Your task to perform on an android device: turn pop-ups off in chrome Image 0: 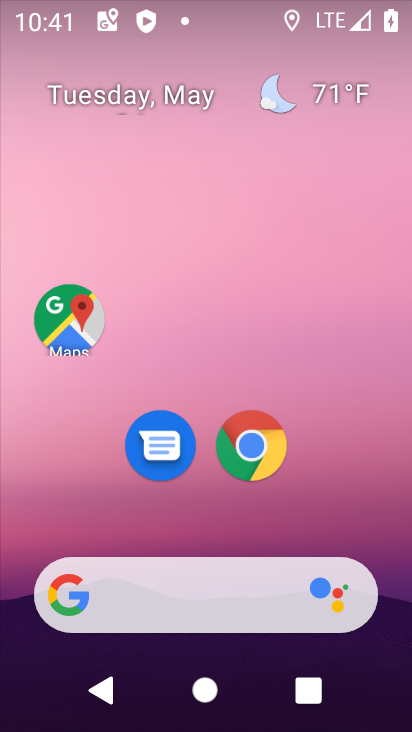
Step 0: click (249, 447)
Your task to perform on an android device: turn pop-ups off in chrome Image 1: 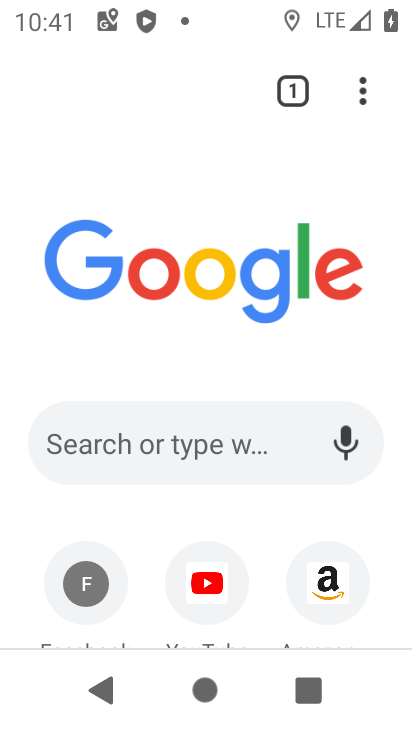
Step 1: click (363, 92)
Your task to perform on an android device: turn pop-ups off in chrome Image 2: 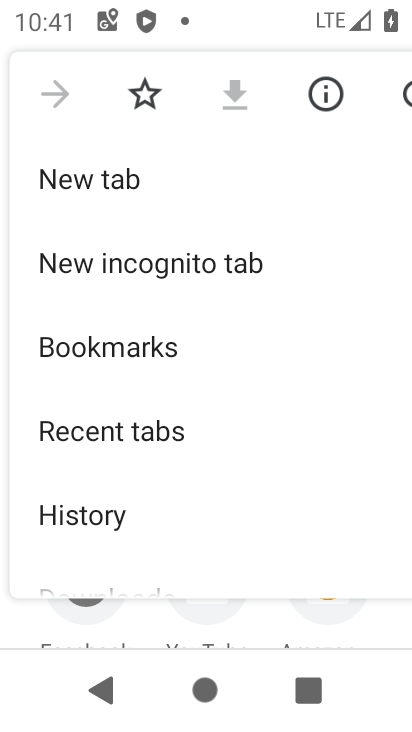
Step 2: drag from (128, 484) to (193, 386)
Your task to perform on an android device: turn pop-ups off in chrome Image 3: 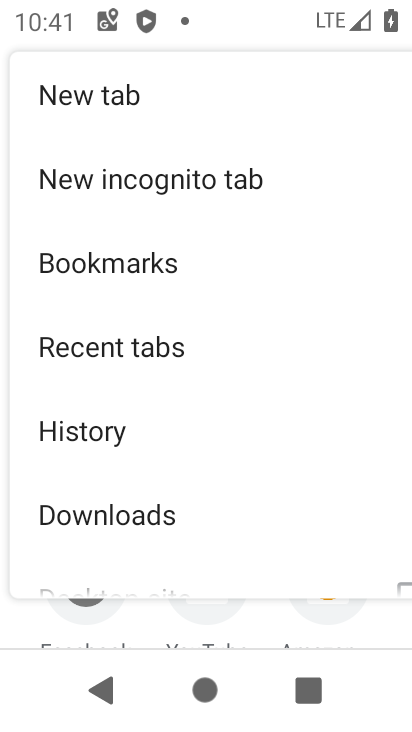
Step 3: drag from (122, 481) to (187, 394)
Your task to perform on an android device: turn pop-ups off in chrome Image 4: 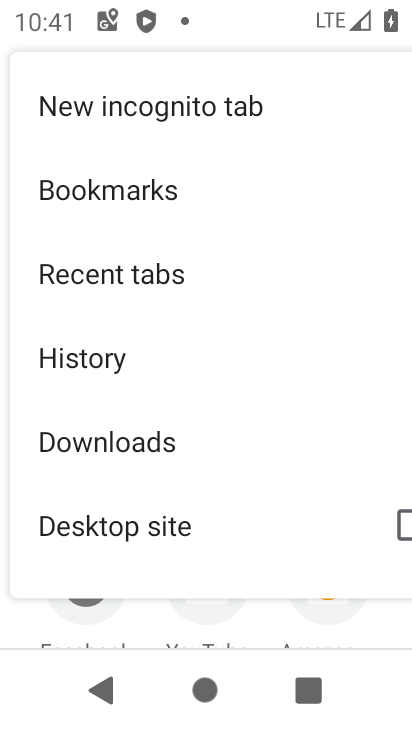
Step 4: drag from (178, 456) to (230, 390)
Your task to perform on an android device: turn pop-ups off in chrome Image 5: 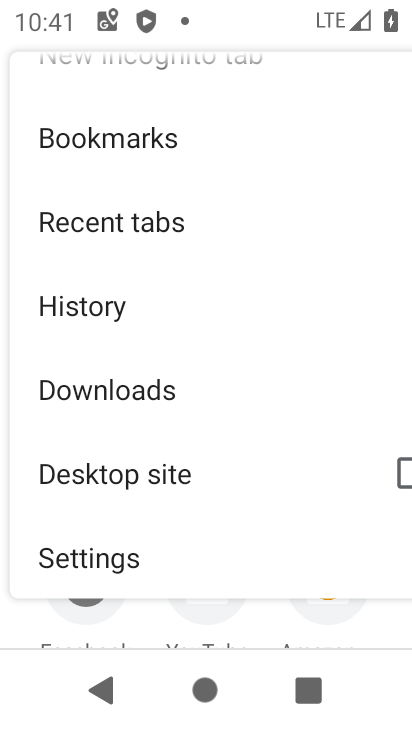
Step 5: drag from (130, 519) to (238, 403)
Your task to perform on an android device: turn pop-ups off in chrome Image 6: 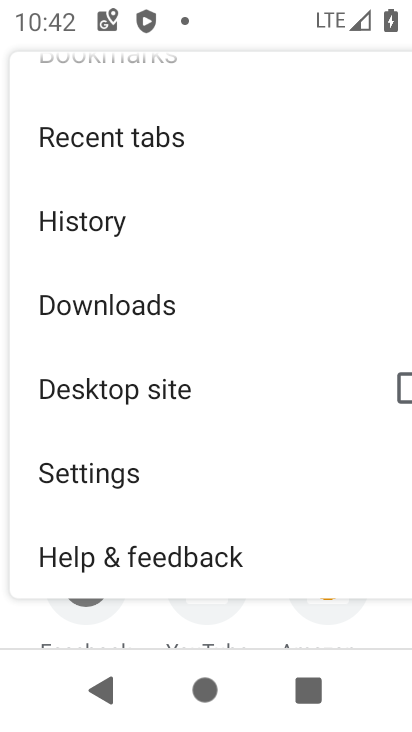
Step 6: click (112, 477)
Your task to perform on an android device: turn pop-ups off in chrome Image 7: 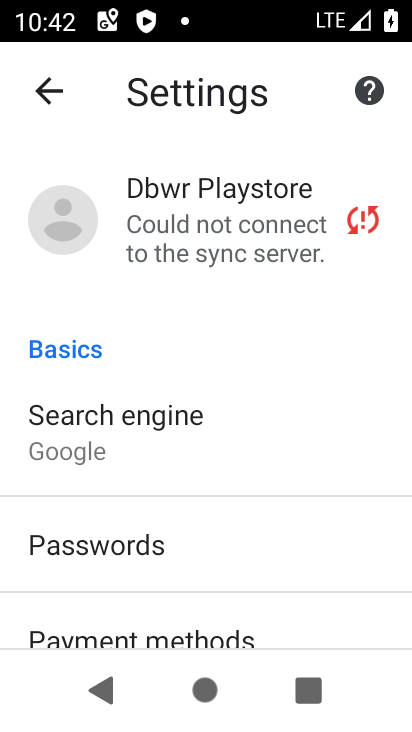
Step 7: drag from (206, 542) to (261, 446)
Your task to perform on an android device: turn pop-ups off in chrome Image 8: 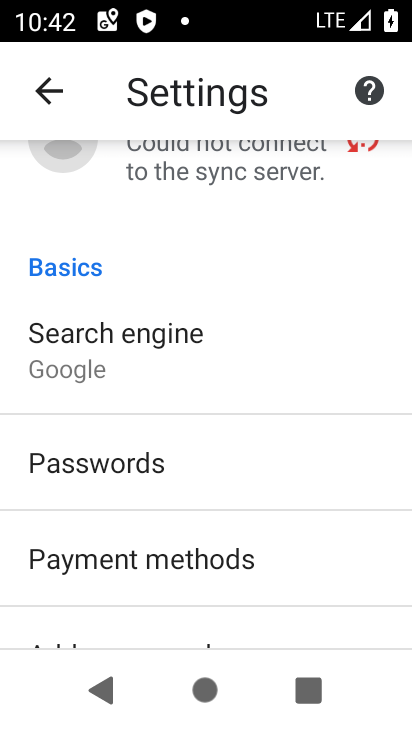
Step 8: drag from (186, 532) to (270, 436)
Your task to perform on an android device: turn pop-ups off in chrome Image 9: 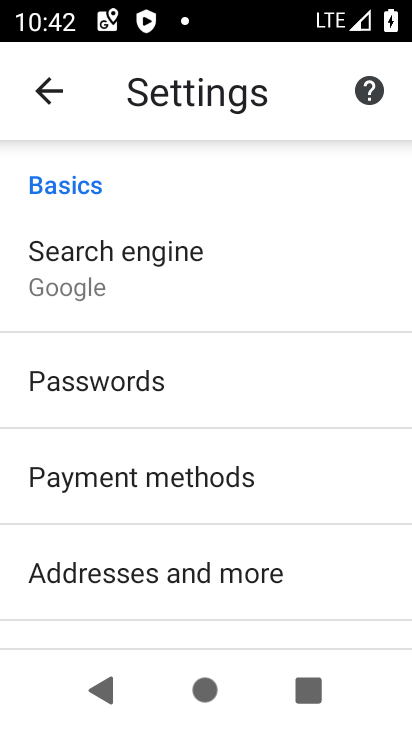
Step 9: drag from (180, 540) to (263, 436)
Your task to perform on an android device: turn pop-ups off in chrome Image 10: 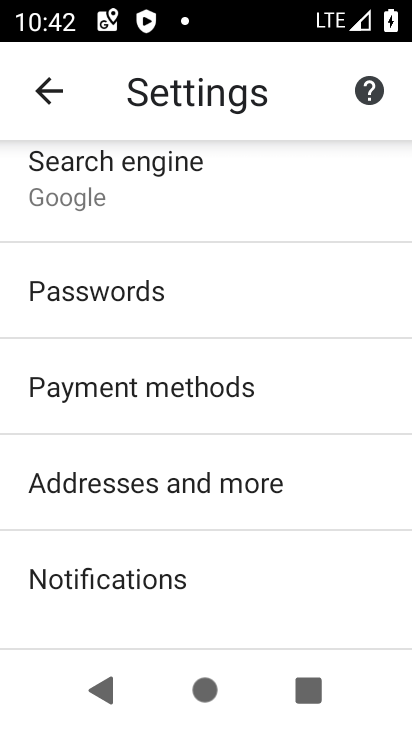
Step 10: drag from (219, 556) to (283, 464)
Your task to perform on an android device: turn pop-ups off in chrome Image 11: 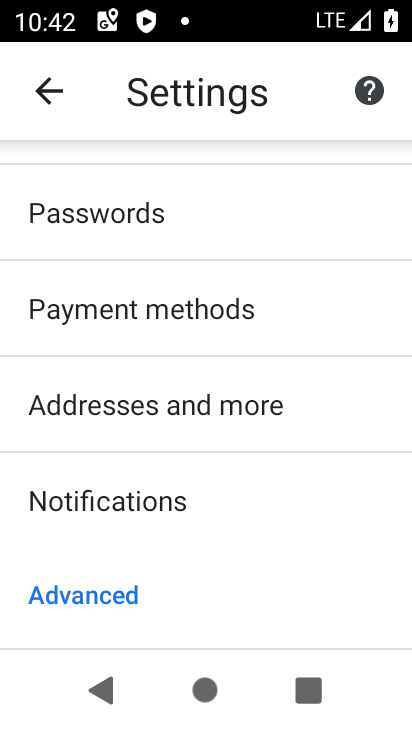
Step 11: drag from (197, 571) to (235, 452)
Your task to perform on an android device: turn pop-ups off in chrome Image 12: 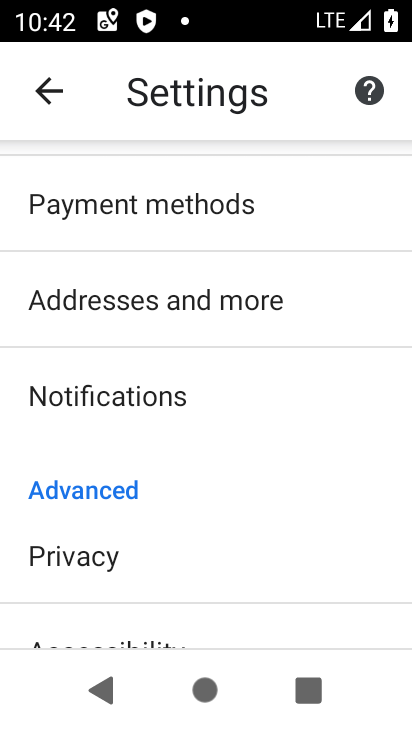
Step 12: drag from (189, 536) to (248, 445)
Your task to perform on an android device: turn pop-ups off in chrome Image 13: 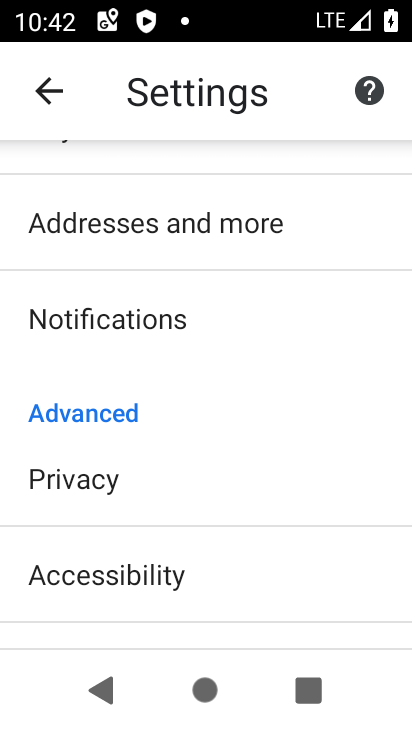
Step 13: drag from (193, 503) to (282, 389)
Your task to perform on an android device: turn pop-ups off in chrome Image 14: 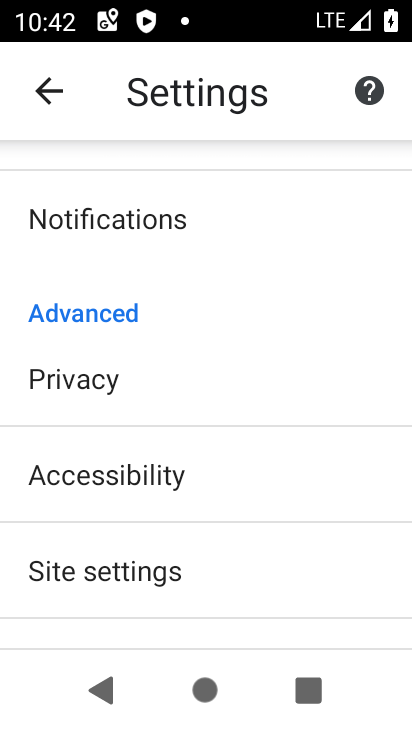
Step 14: drag from (214, 558) to (277, 471)
Your task to perform on an android device: turn pop-ups off in chrome Image 15: 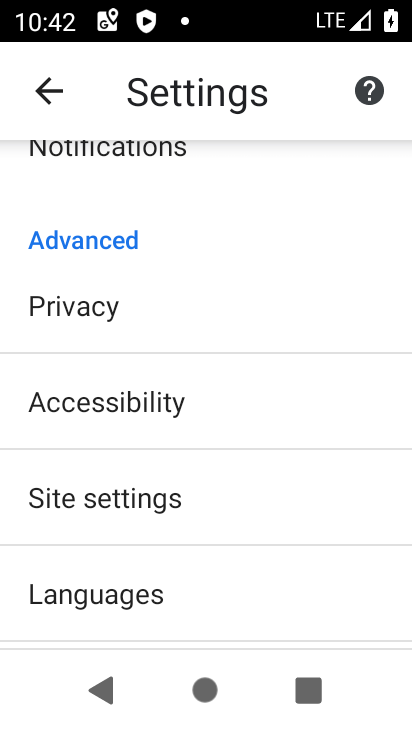
Step 15: click (178, 502)
Your task to perform on an android device: turn pop-ups off in chrome Image 16: 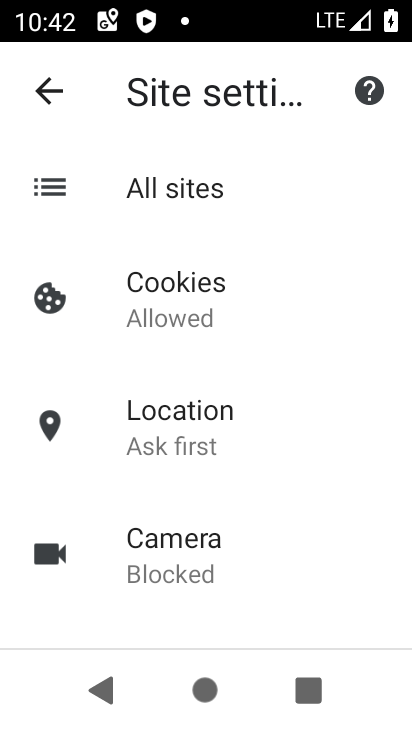
Step 16: drag from (189, 474) to (233, 383)
Your task to perform on an android device: turn pop-ups off in chrome Image 17: 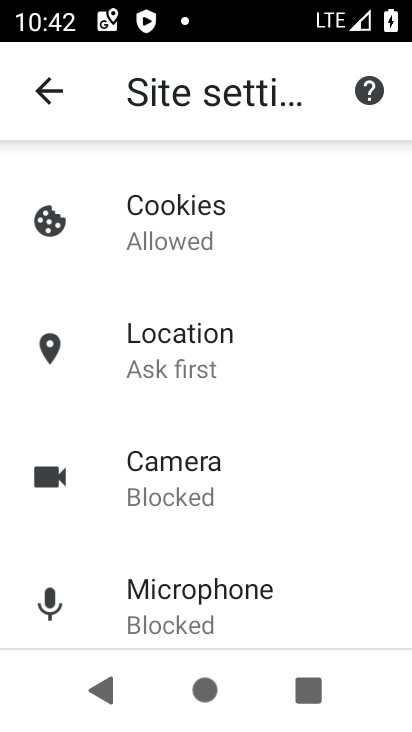
Step 17: drag from (184, 527) to (243, 418)
Your task to perform on an android device: turn pop-ups off in chrome Image 18: 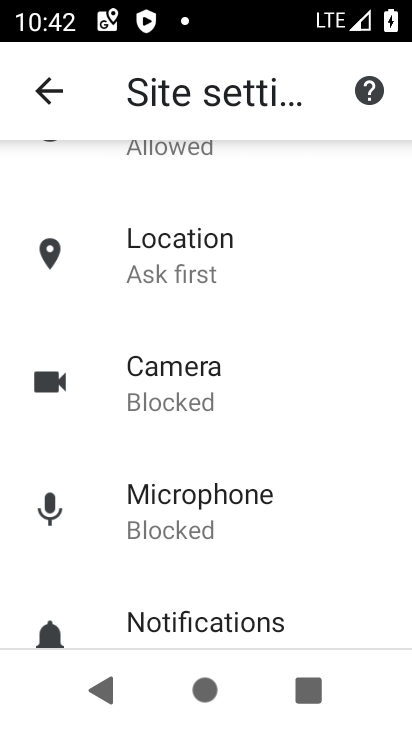
Step 18: drag from (191, 552) to (245, 456)
Your task to perform on an android device: turn pop-ups off in chrome Image 19: 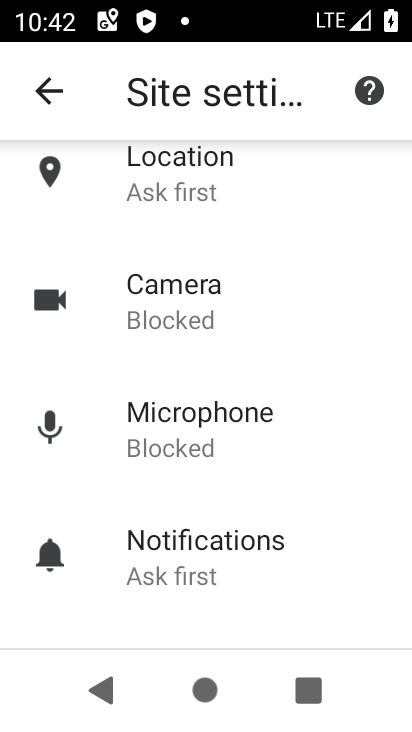
Step 19: drag from (182, 492) to (236, 389)
Your task to perform on an android device: turn pop-ups off in chrome Image 20: 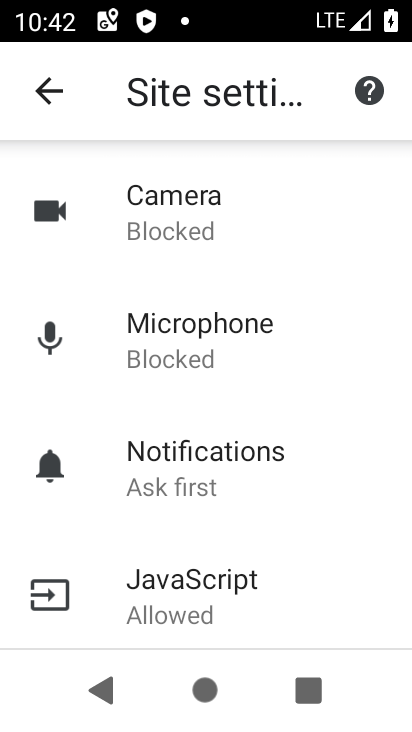
Step 20: drag from (172, 528) to (247, 418)
Your task to perform on an android device: turn pop-ups off in chrome Image 21: 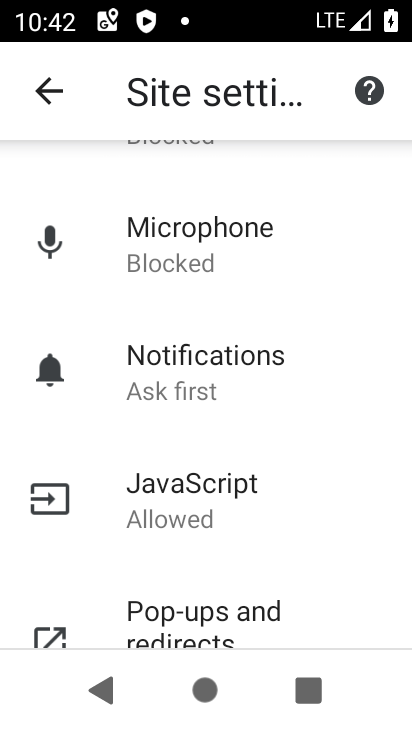
Step 21: drag from (183, 579) to (281, 416)
Your task to perform on an android device: turn pop-ups off in chrome Image 22: 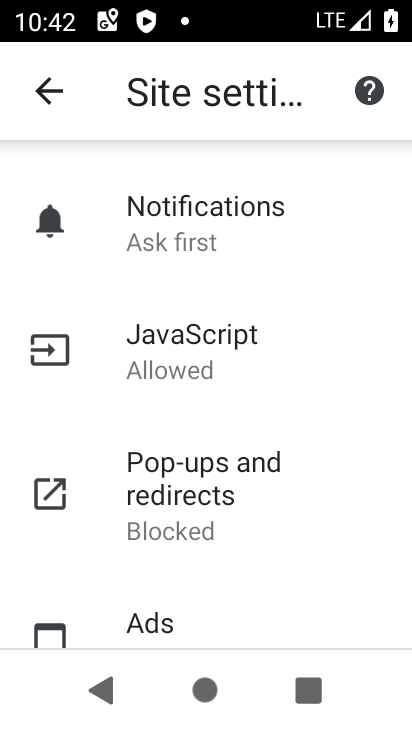
Step 22: click (211, 484)
Your task to perform on an android device: turn pop-ups off in chrome Image 23: 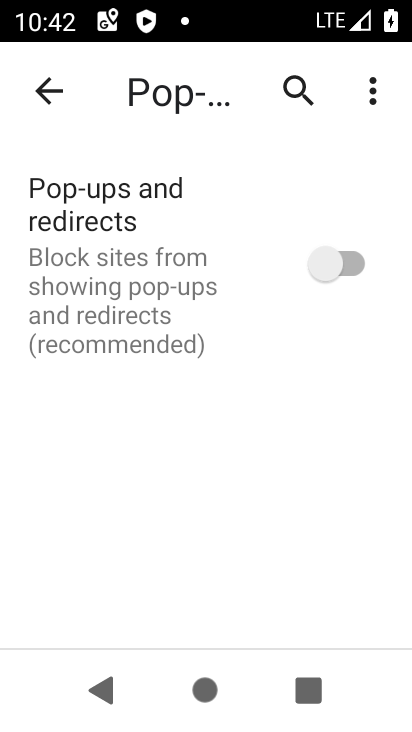
Step 23: task complete